Your task to perform on an android device: Open my contact list Image 0: 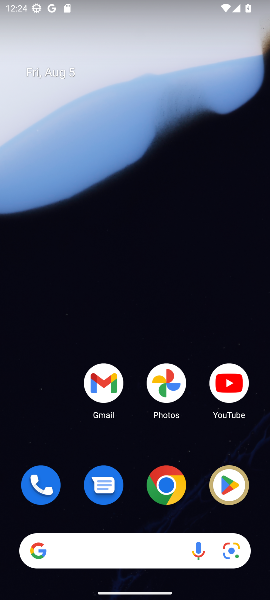
Step 0: drag from (137, 444) to (118, 53)
Your task to perform on an android device: Open my contact list Image 1: 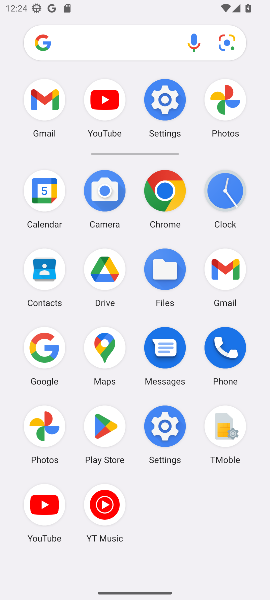
Step 1: click (40, 262)
Your task to perform on an android device: Open my contact list Image 2: 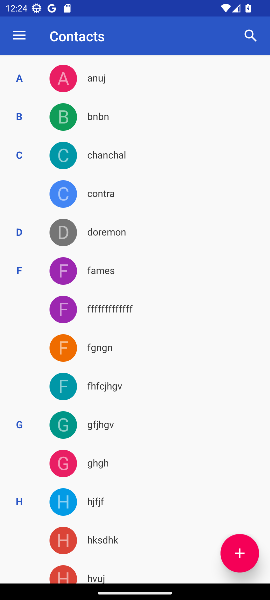
Step 2: task complete